Your task to perform on an android device: find snoozed emails in the gmail app Image 0: 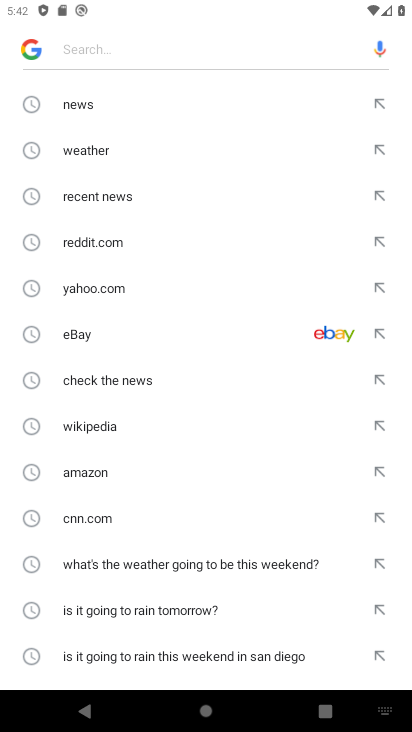
Step 0: press back button
Your task to perform on an android device: find snoozed emails in the gmail app Image 1: 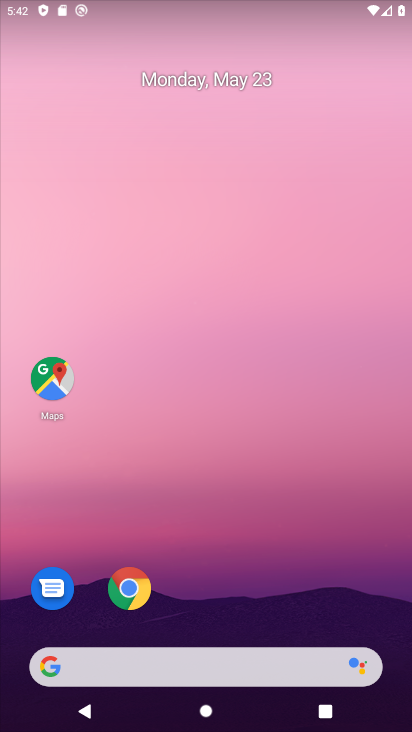
Step 1: drag from (210, 542) to (195, 28)
Your task to perform on an android device: find snoozed emails in the gmail app Image 2: 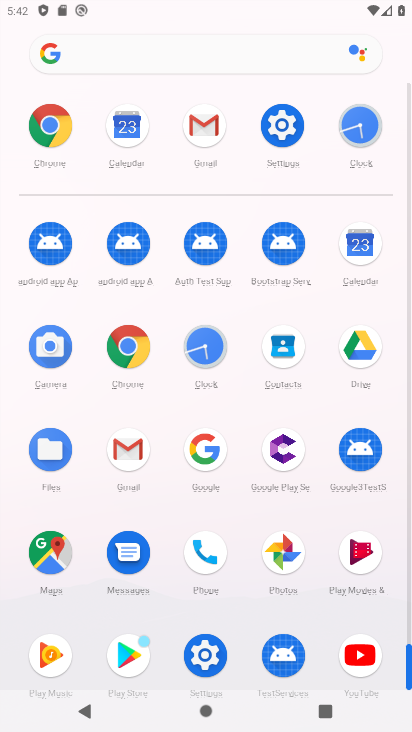
Step 2: drag from (6, 579) to (12, 271)
Your task to perform on an android device: find snoozed emails in the gmail app Image 3: 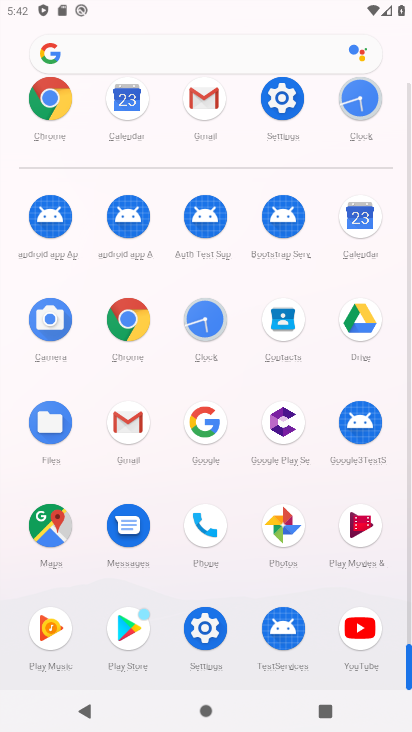
Step 3: click (124, 413)
Your task to perform on an android device: find snoozed emails in the gmail app Image 4: 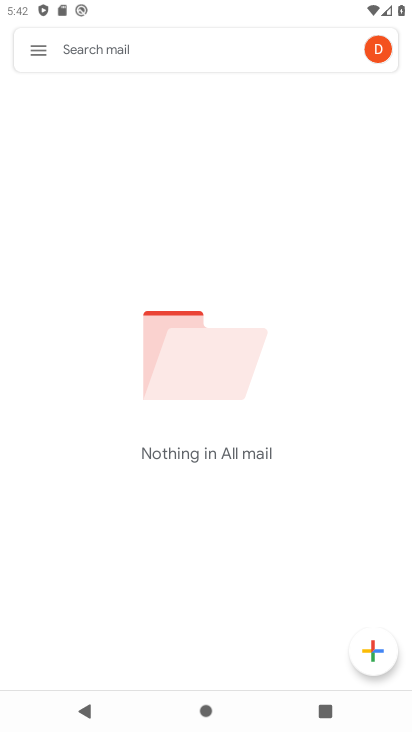
Step 4: click (48, 49)
Your task to perform on an android device: find snoozed emails in the gmail app Image 5: 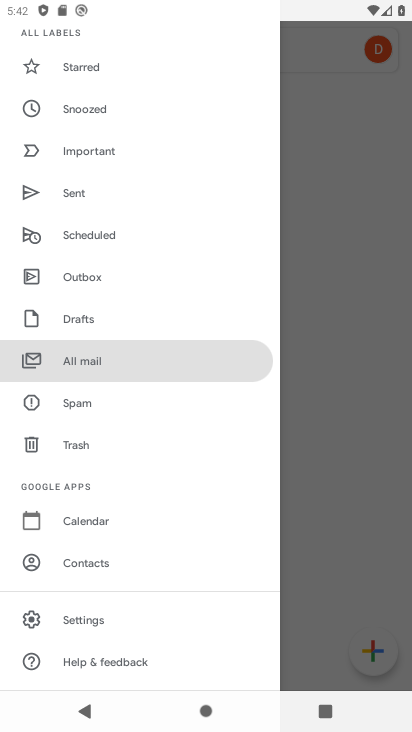
Step 5: click (119, 108)
Your task to perform on an android device: find snoozed emails in the gmail app Image 6: 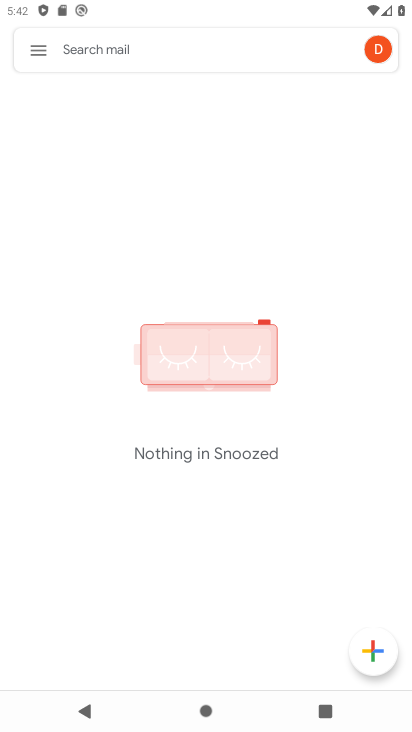
Step 6: task complete